Your task to perform on an android device: delete a single message in the gmail app Image 0: 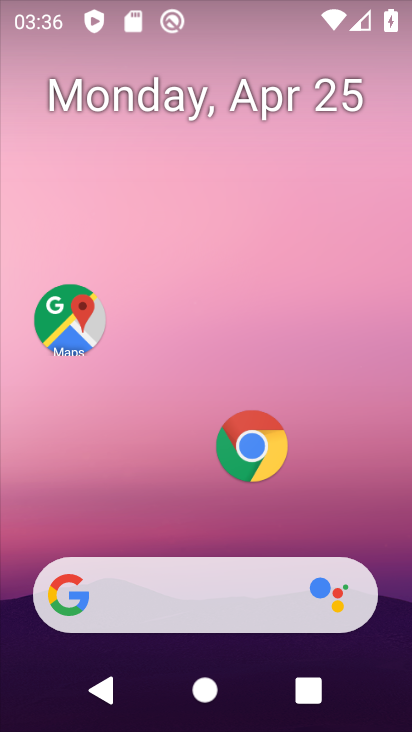
Step 0: drag from (169, 523) to (398, 203)
Your task to perform on an android device: delete a single message in the gmail app Image 1: 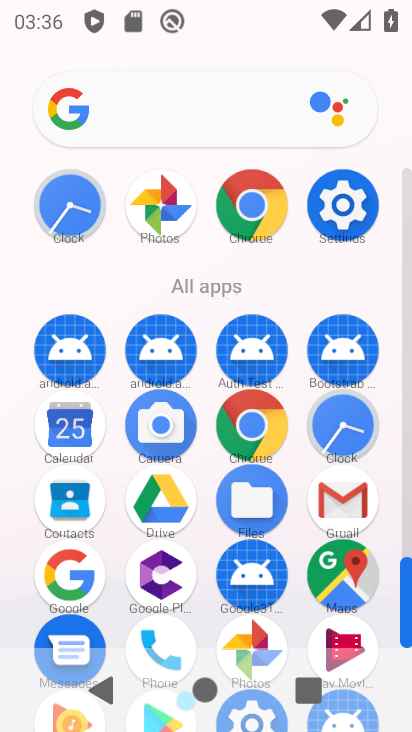
Step 1: click (355, 514)
Your task to perform on an android device: delete a single message in the gmail app Image 2: 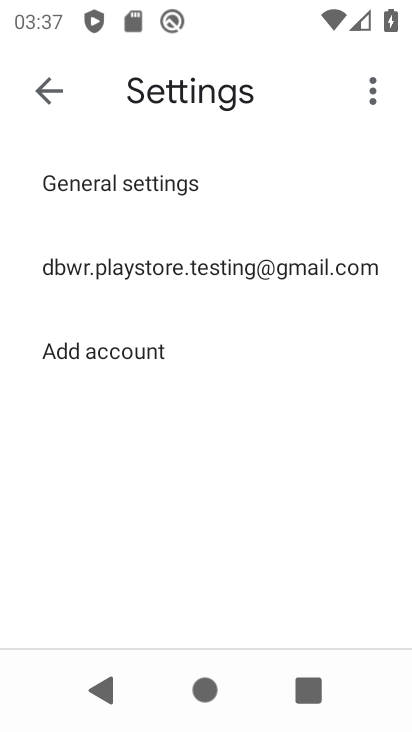
Step 2: click (237, 272)
Your task to perform on an android device: delete a single message in the gmail app Image 3: 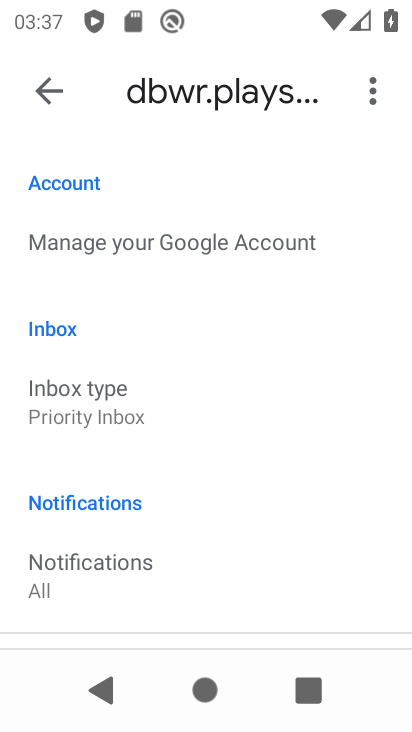
Step 3: click (42, 77)
Your task to perform on an android device: delete a single message in the gmail app Image 4: 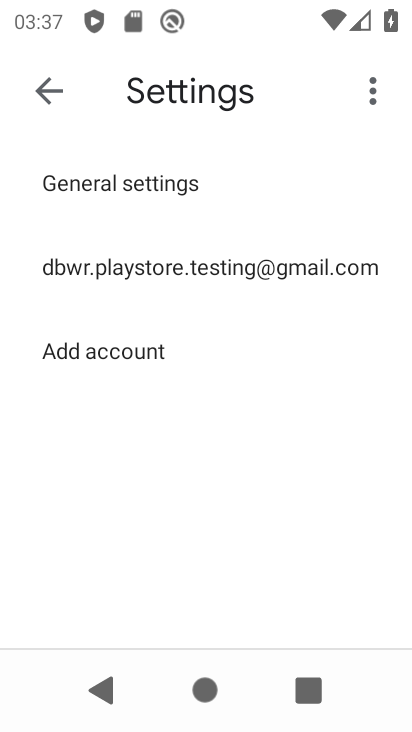
Step 4: task complete